Your task to perform on an android device: manage bookmarks in the chrome app Image 0: 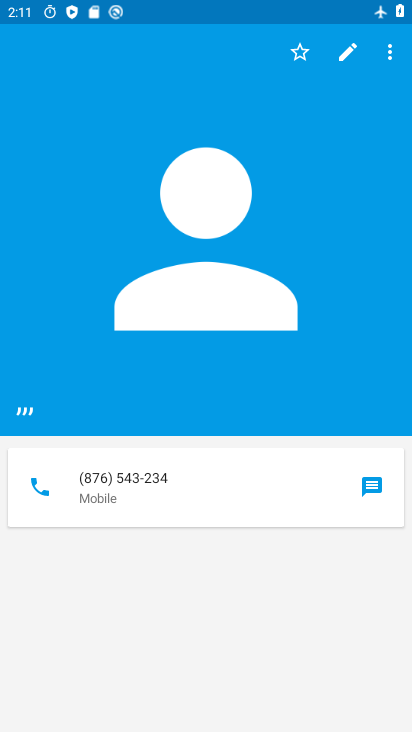
Step 0: press home button
Your task to perform on an android device: manage bookmarks in the chrome app Image 1: 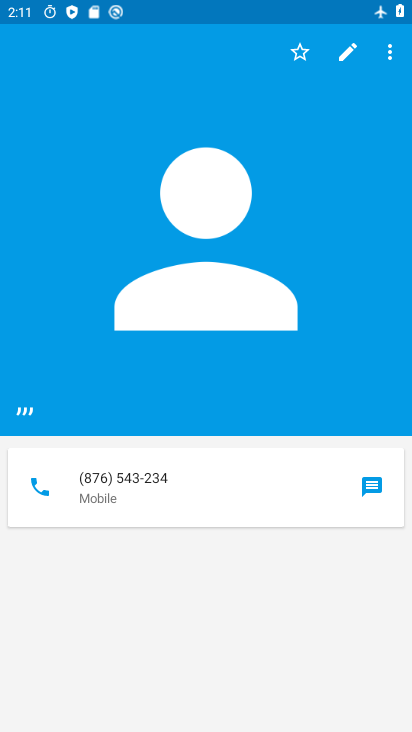
Step 1: drag from (253, 363) to (312, 100)
Your task to perform on an android device: manage bookmarks in the chrome app Image 2: 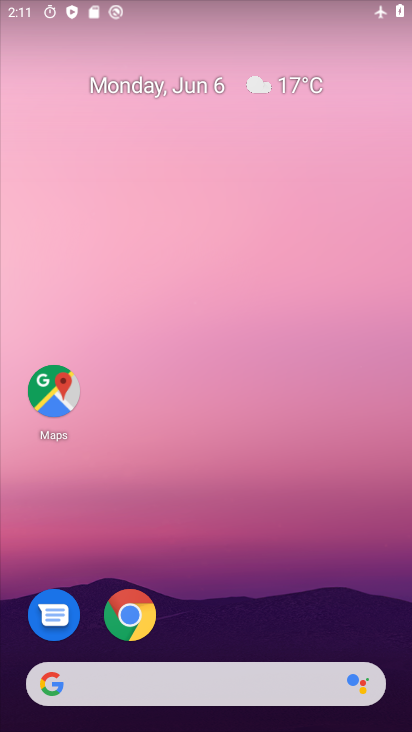
Step 2: drag from (251, 648) to (387, 87)
Your task to perform on an android device: manage bookmarks in the chrome app Image 3: 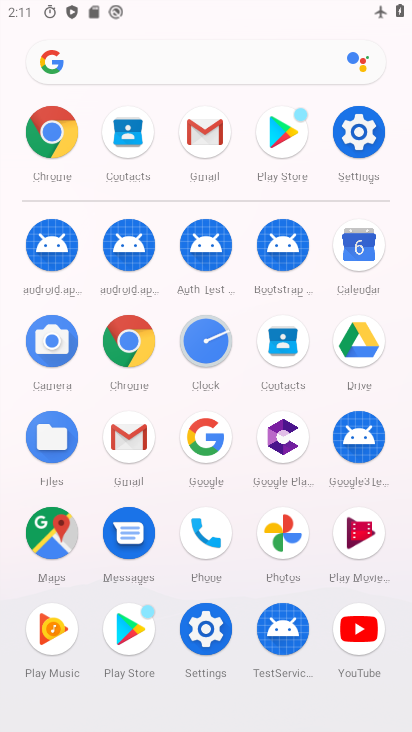
Step 3: click (128, 330)
Your task to perform on an android device: manage bookmarks in the chrome app Image 4: 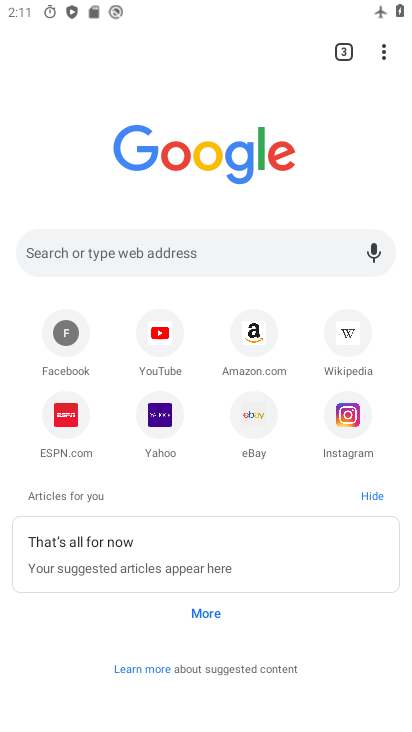
Step 4: task complete